Your task to perform on an android device: turn off location history Image 0: 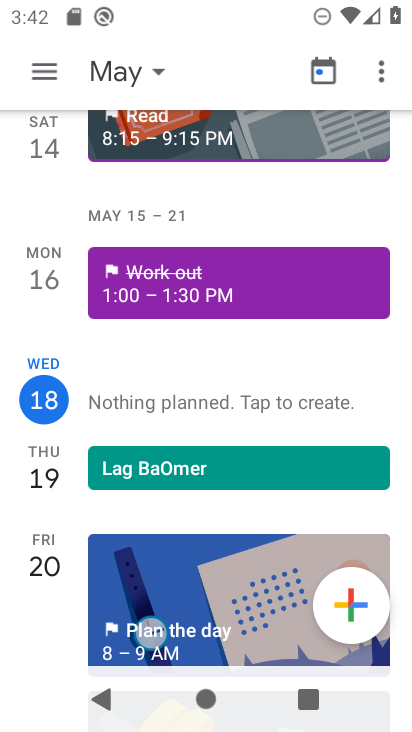
Step 0: press home button
Your task to perform on an android device: turn off location history Image 1: 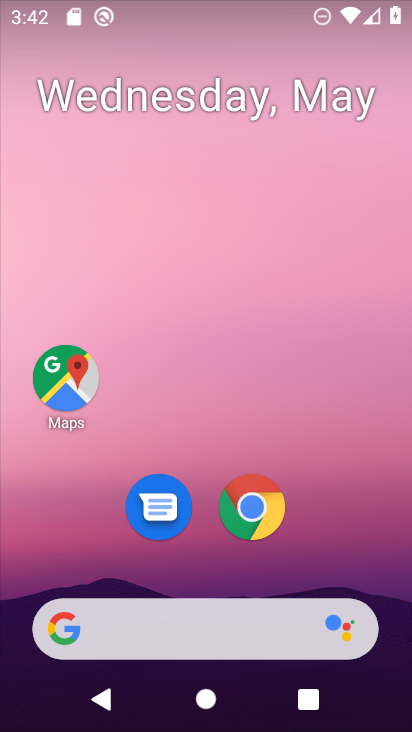
Step 1: drag from (218, 528) to (277, 74)
Your task to perform on an android device: turn off location history Image 2: 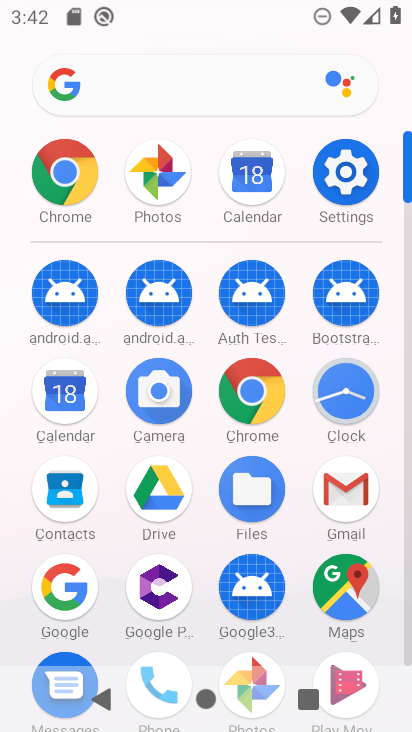
Step 2: click (339, 176)
Your task to perform on an android device: turn off location history Image 3: 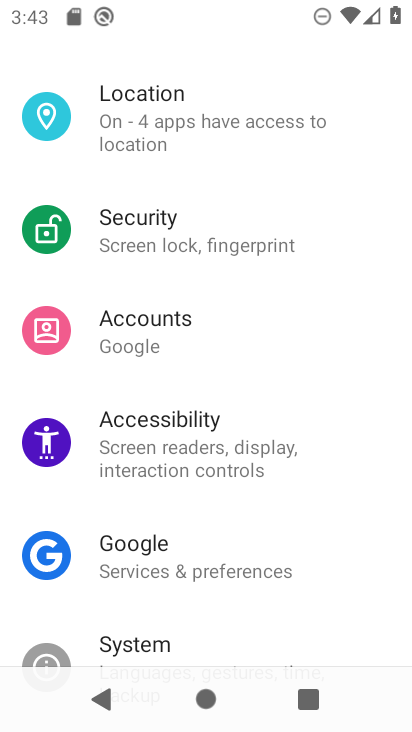
Step 3: click (147, 113)
Your task to perform on an android device: turn off location history Image 4: 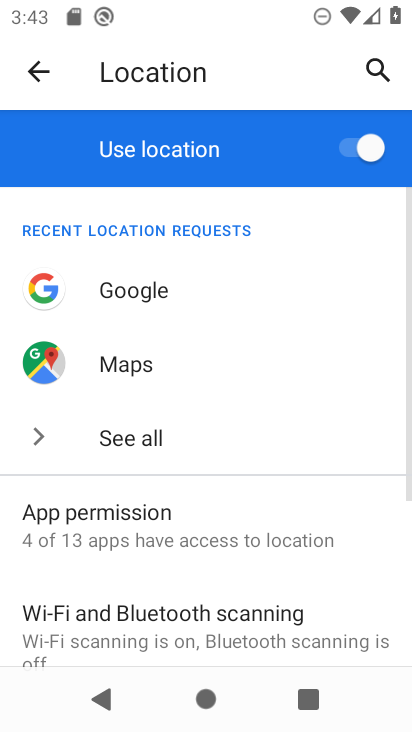
Step 4: drag from (188, 586) to (284, 101)
Your task to perform on an android device: turn off location history Image 5: 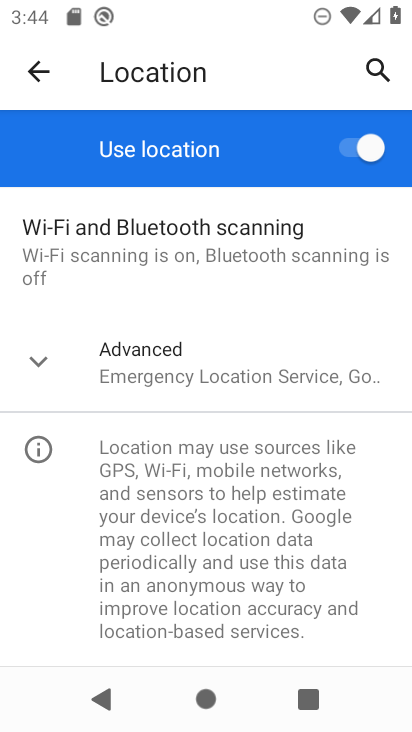
Step 5: click (175, 370)
Your task to perform on an android device: turn off location history Image 6: 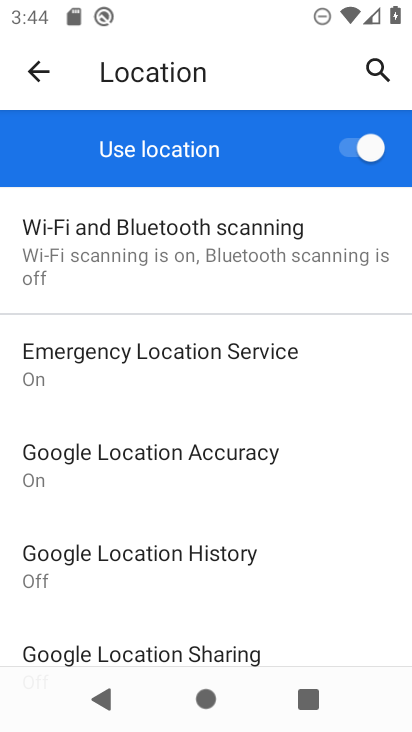
Step 6: click (121, 565)
Your task to perform on an android device: turn off location history Image 7: 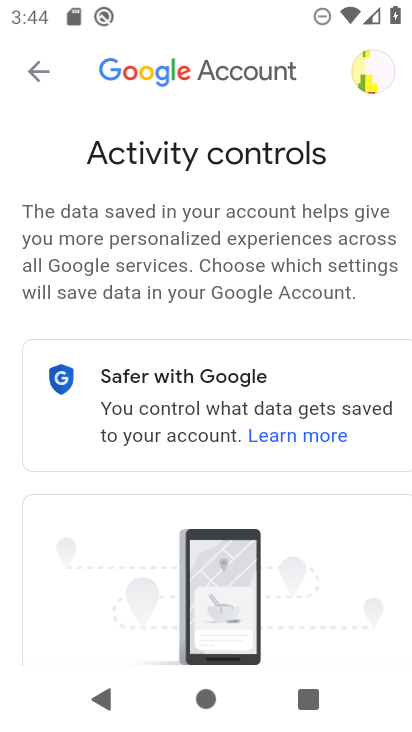
Step 7: task complete